Your task to perform on an android device: visit the assistant section in the google photos Image 0: 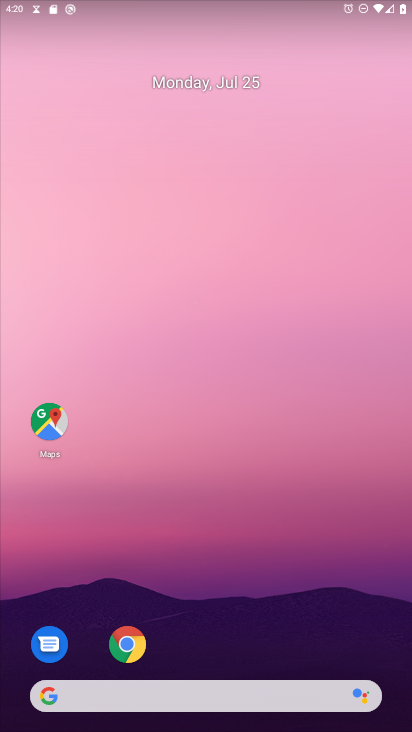
Step 0: press home button
Your task to perform on an android device: visit the assistant section in the google photos Image 1: 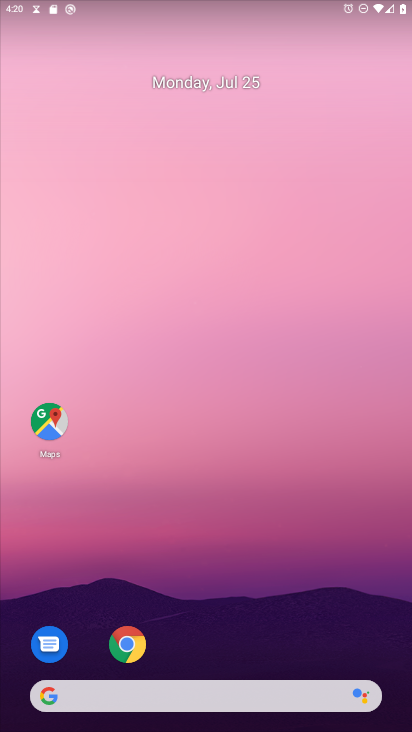
Step 1: drag from (230, 599) to (185, 13)
Your task to perform on an android device: visit the assistant section in the google photos Image 2: 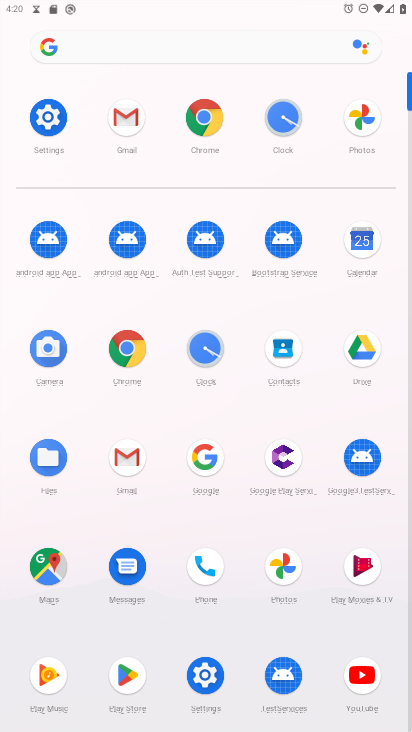
Step 2: click (285, 562)
Your task to perform on an android device: visit the assistant section in the google photos Image 3: 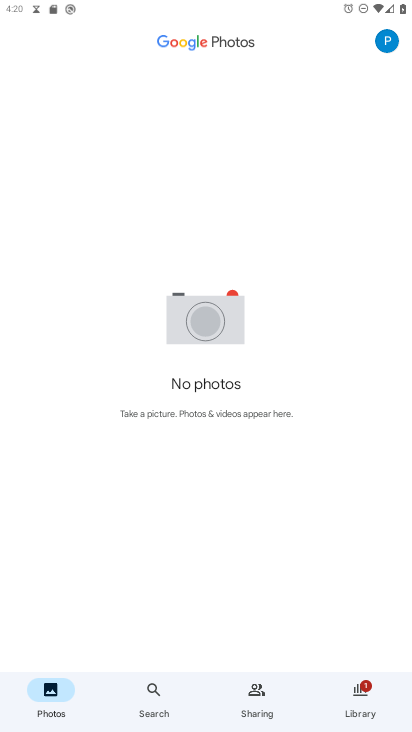
Step 3: task complete